Your task to perform on an android device: Open calendar and show me the second week of next month Image 0: 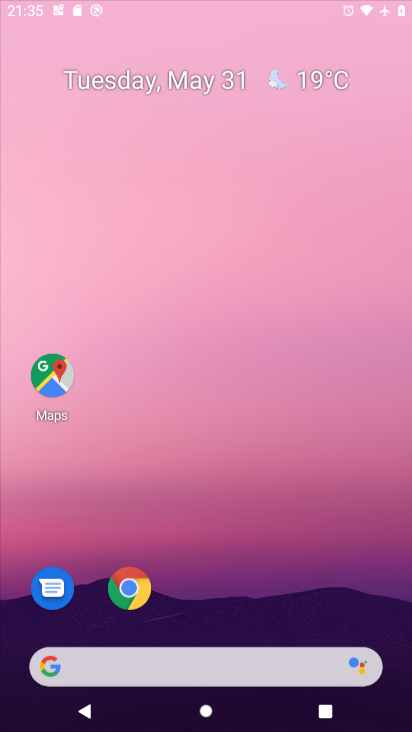
Step 0: press home button
Your task to perform on an android device: Open calendar and show me the second week of next month Image 1: 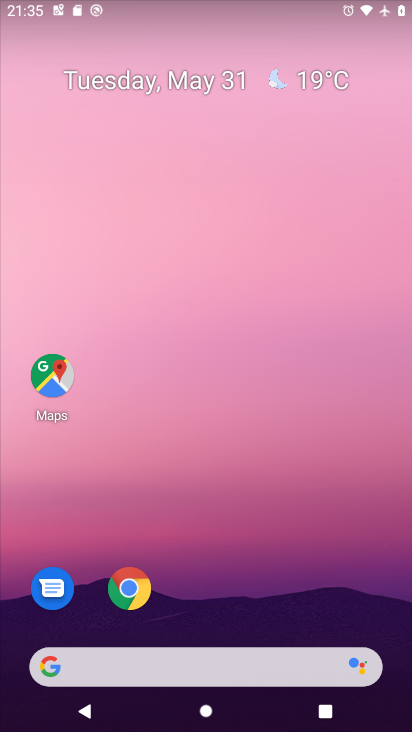
Step 1: click (136, 585)
Your task to perform on an android device: Open calendar and show me the second week of next month Image 2: 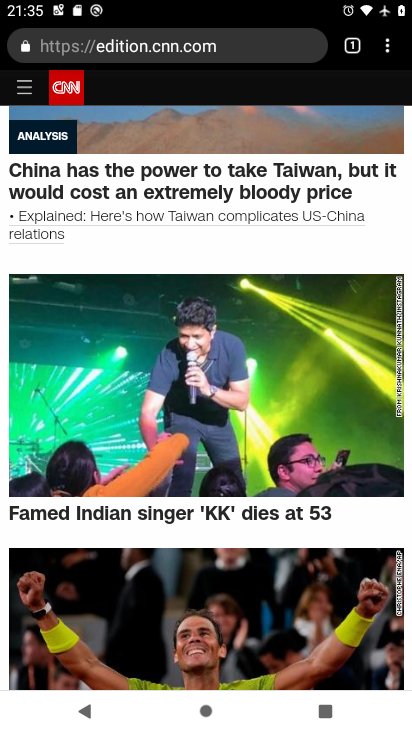
Step 2: press home button
Your task to perform on an android device: Open calendar and show me the second week of next month Image 3: 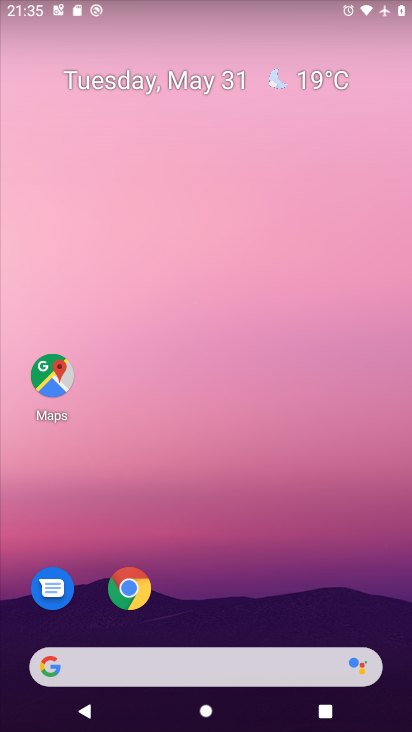
Step 3: drag from (144, 675) to (278, 162)
Your task to perform on an android device: Open calendar and show me the second week of next month Image 4: 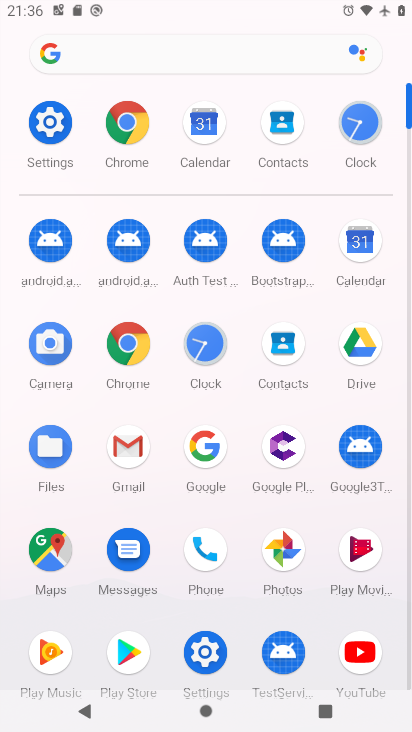
Step 4: click (363, 237)
Your task to perform on an android device: Open calendar and show me the second week of next month Image 5: 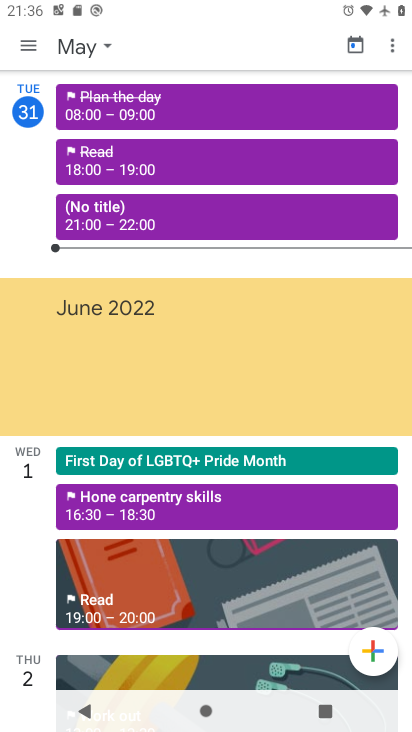
Step 5: click (86, 47)
Your task to perform on an android device: Open calendar and show me the second week of next month Image 6: 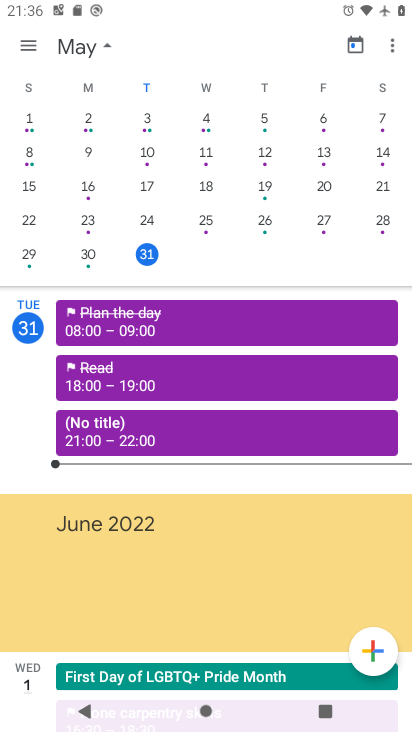
Step 6: drag from (334, 162) to (10, 299)
Your task to perform on an android device: Open calendar and show me the second week of next month Image 7: 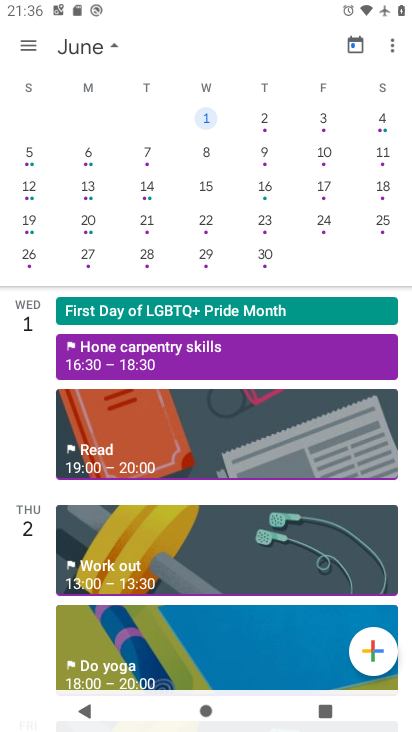
Step 7: click (34, 157)
Your task to perform on an android device: Open calendar and show me the second week of next month Image 8: 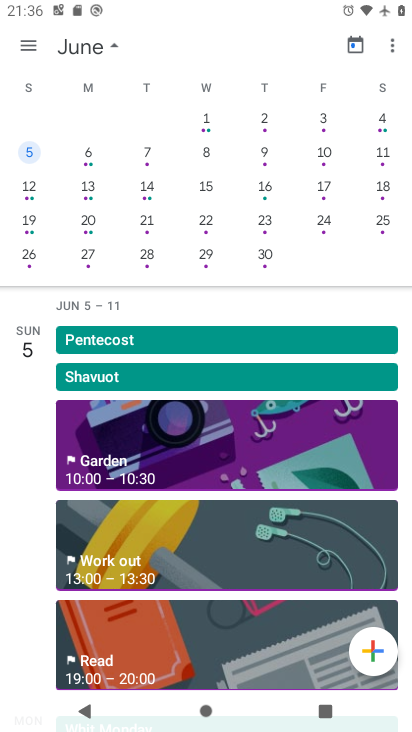
Step 8: click (31, 38)
Your task to perform on an android device: Open calendar and show me the second week of next month Image 9: 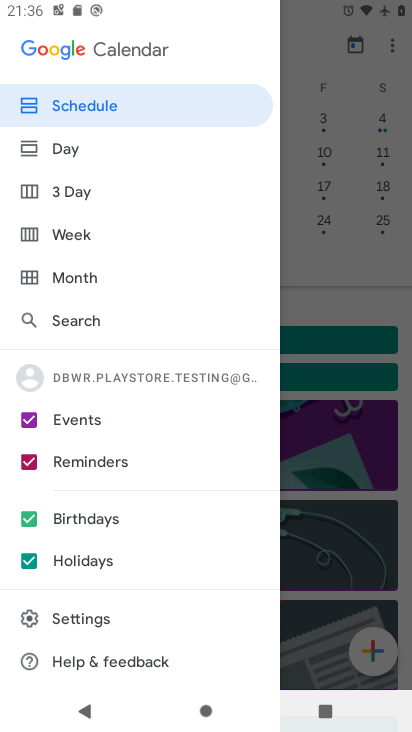
Step 9: click (80, 233)
Your task to perform on an android device: Open calendar and show me the second week of next month Image 10: 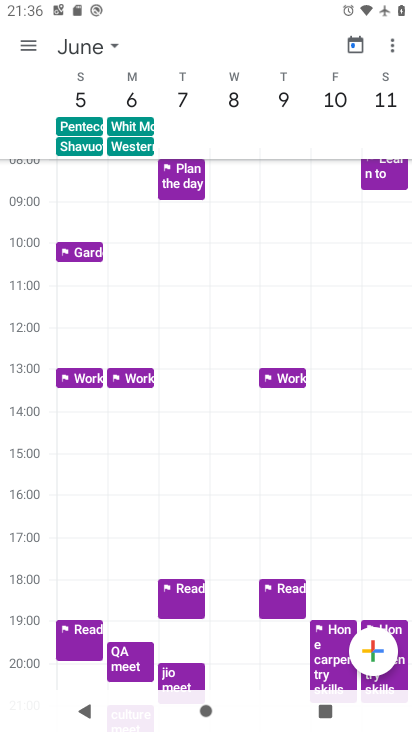
Step 10: task complete